Your task to perform on an android device: change the clock display to show seconds Image 0: 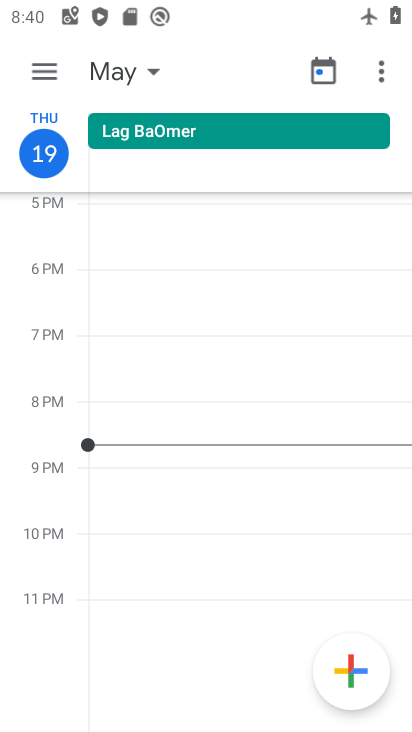
Step 0: press home button
Your task to perform on an android device: change the clock display to show seconds Image 1: 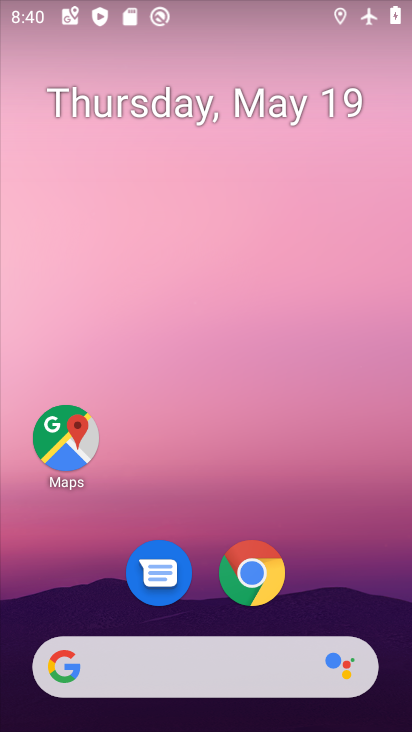
Step 1: drag from (327, 617) to (338, 12)
Your task to perform on an android device: change the clock display to show seconds Image 2: 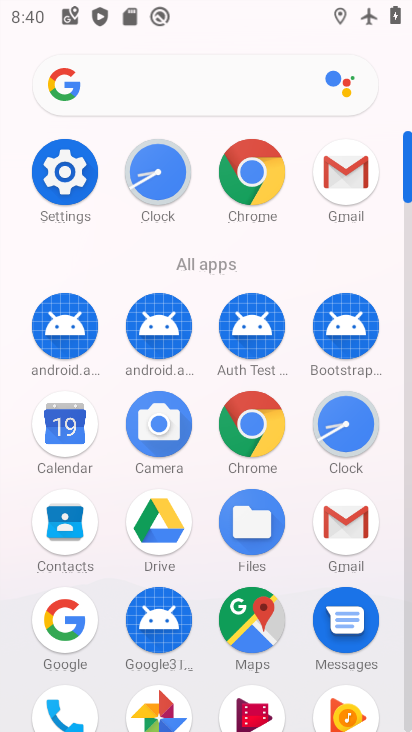
Step 2: click (161, 188)
Your task to perform on an android device: change the clock display to show seconds Image 3: 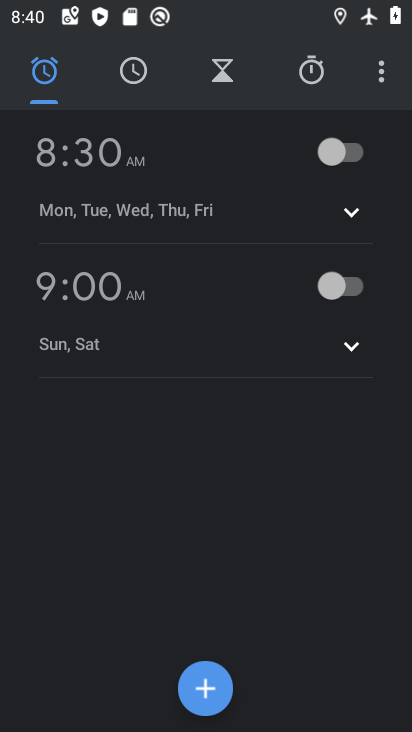
Step 3: click (383, 69)
Your task to perform on an android device: change the clock display to show seconds Image 4: 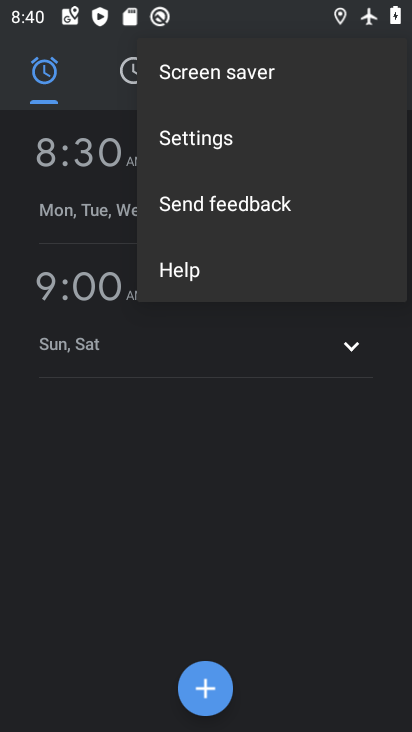
Step 4: click (184, 141)
Your task to perform on an android device: change the clock display to show seconds Image 5: 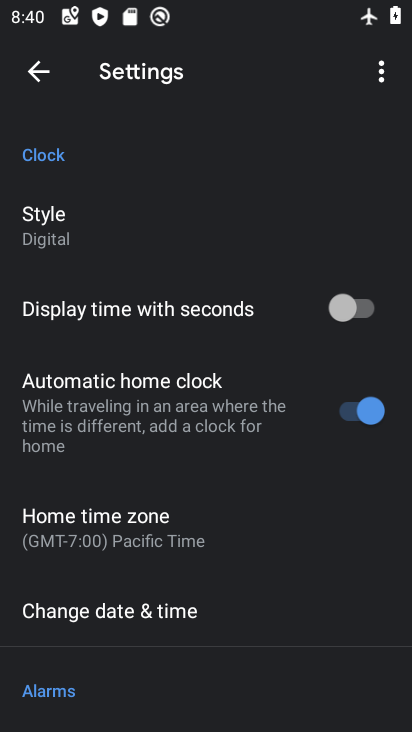
Step 5: click (338, 313)
Your task to perform on an android device: change the clock display to show seconds Image 6: 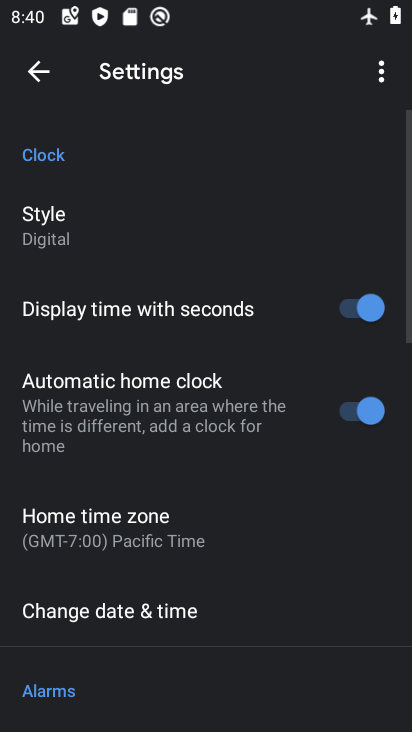
Step 6: task complete